Your task to perform on an android device: allow notifications from all sites in the chrome app Image 0: 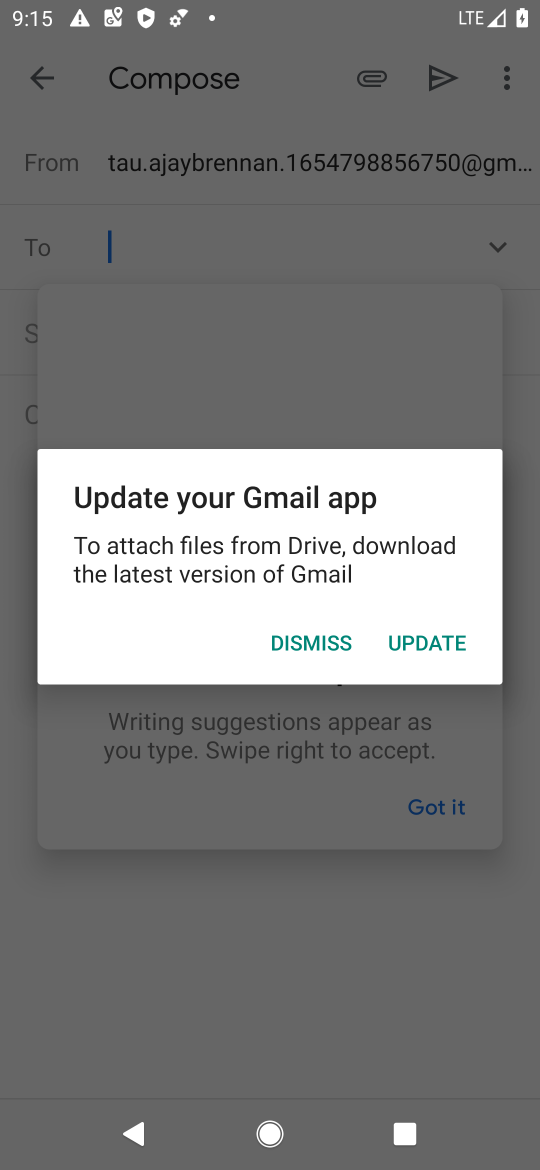
Step 0: press home button
Your task to perform on an android device: allow notifications from all sites in the chrome app Image 1: 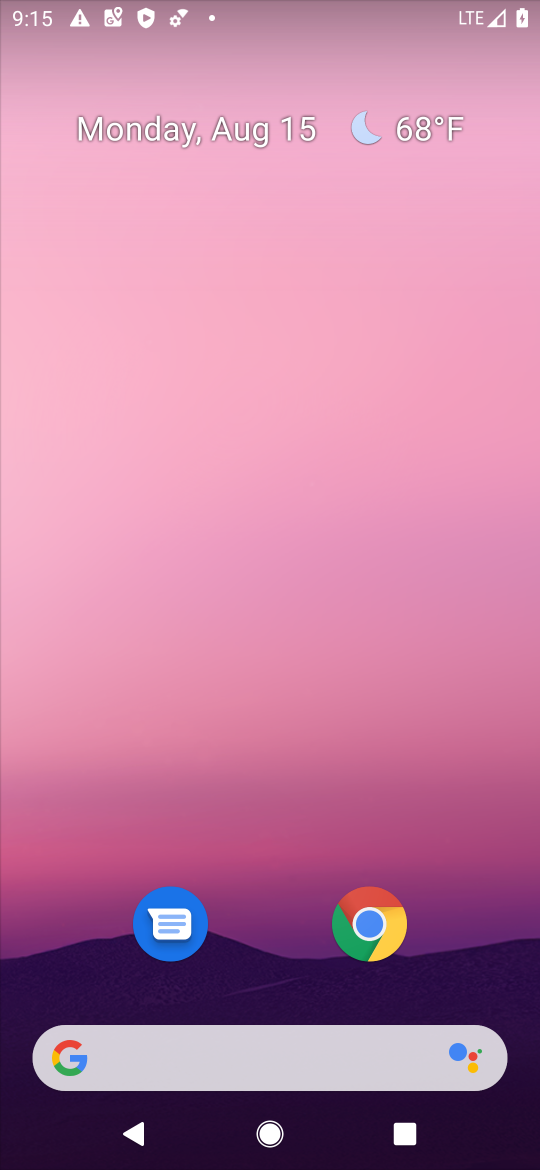
Step 1: click (370, 929)
Your task to perform on an android device: allow notifications from all sites in the chrome app Image 2: 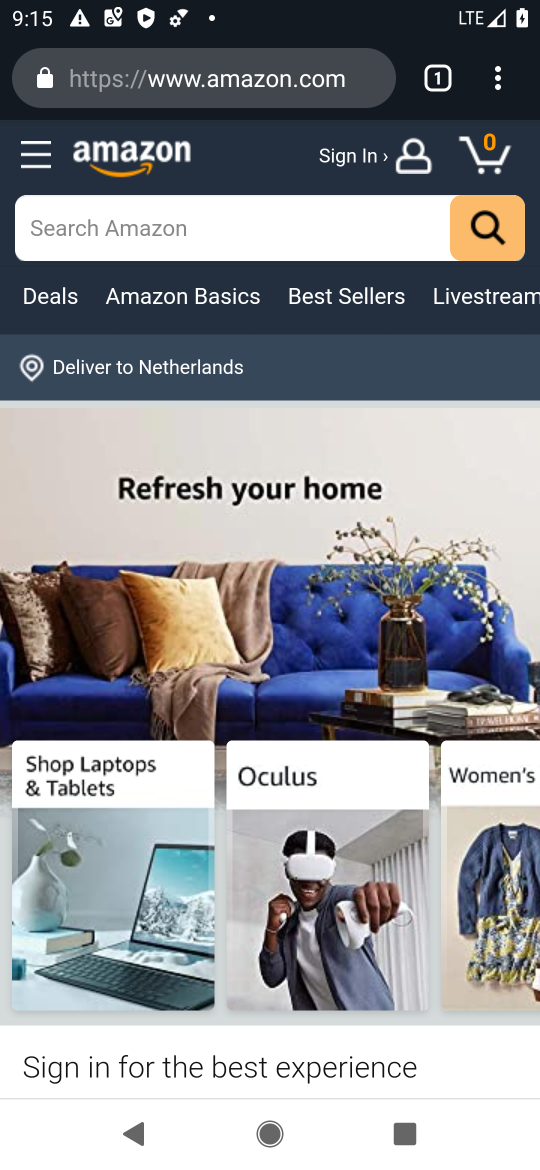
Step 2: click (496, 88)
Your task to perform on an android device: allow notifications from all sites in the chrome app Image 3: 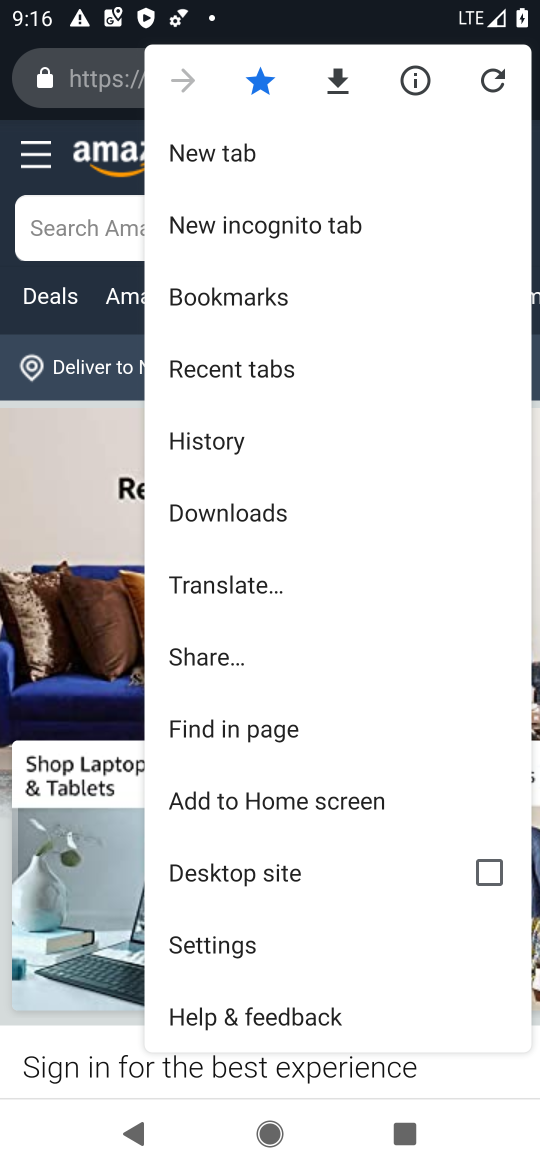
Step 3: click (233, 940)
Your task to perform on an android device: allow notifications from all sites in the chrome app Image 4: 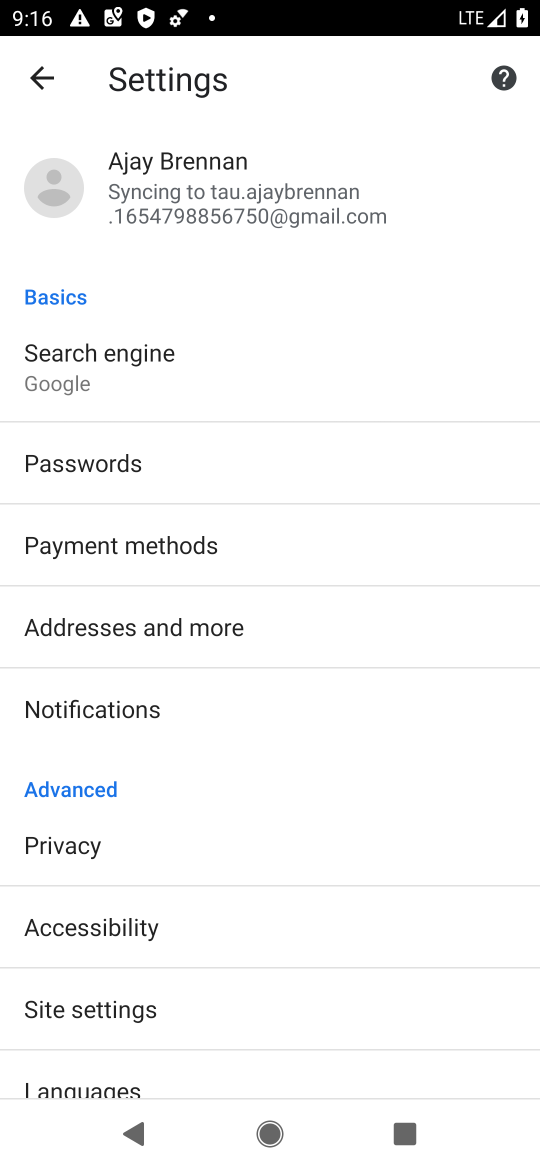
Step 4: drag from (249, 998) to (211, 349)
Your task to perform on an android device: allow notifications from all sites in the chrome app Image 5: 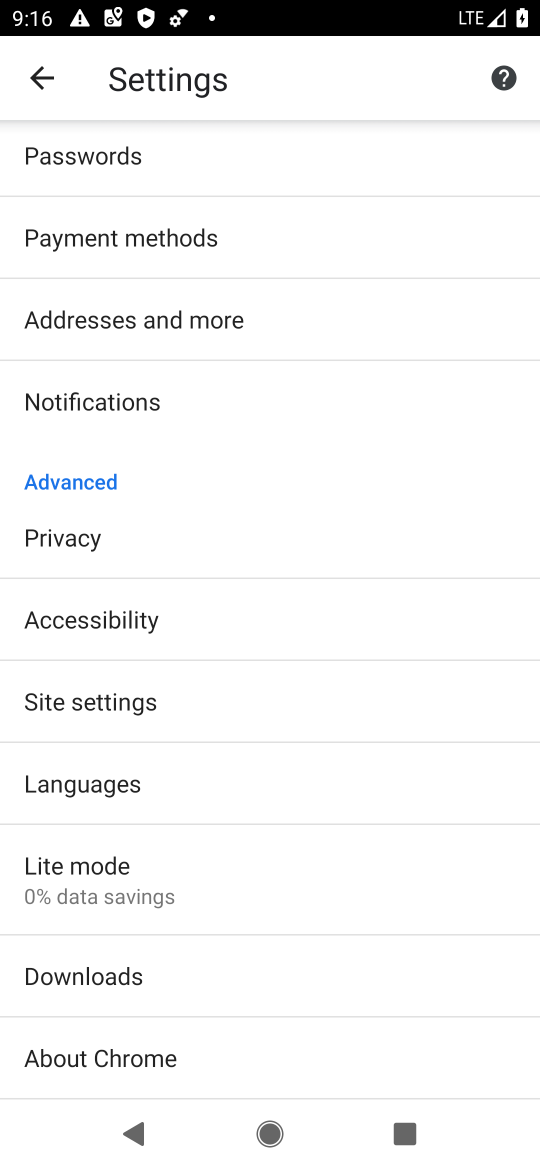
Step 5: click (87, 699)
Your task to perform on an android device: allow notifications from all sites in the chrome app Image 6: 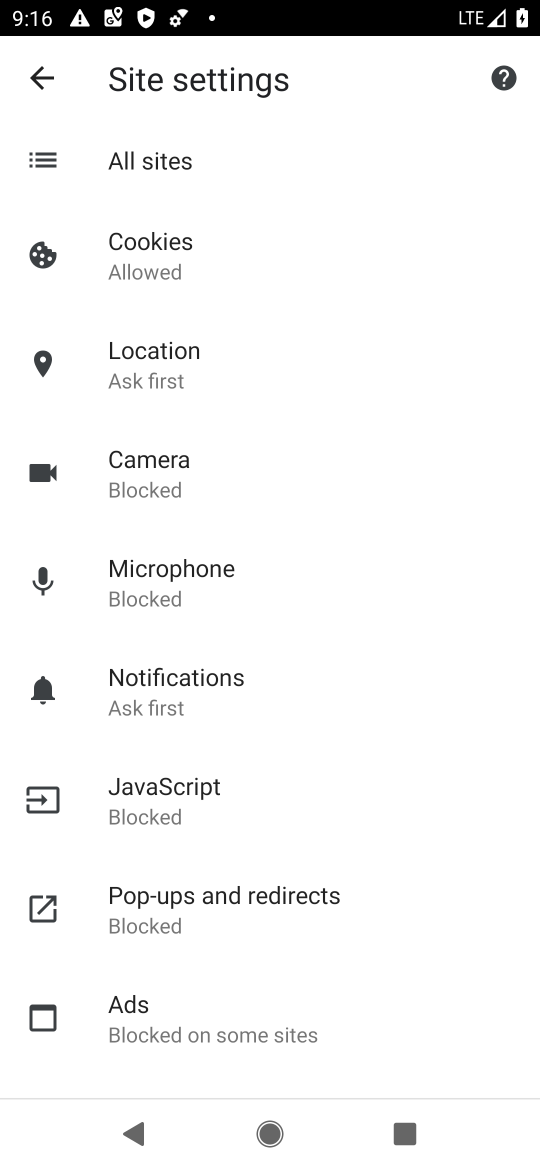
Step 6: click (165, 682)
Your task to perform on an android device: allow notifications from all sites in the chrome app Image 7: 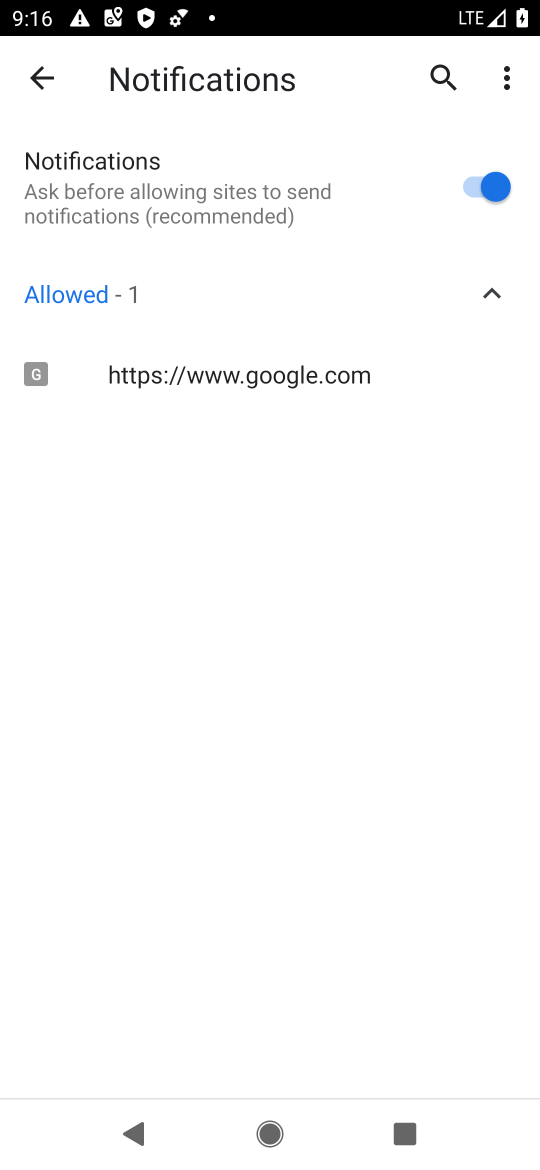
Step 7: task complete